Your task to perform on an android device: turn on showing notifications on the lock screen Image 0: 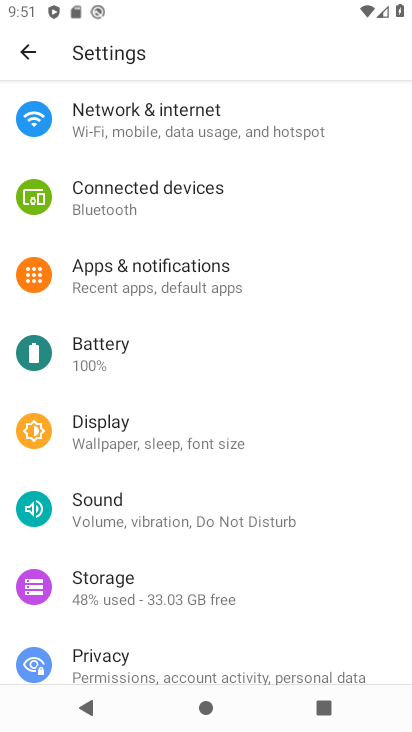
Step 0: click (227, 267)
Your task to perform on an android device: turn on showing notifications on the lock screen Image 1: 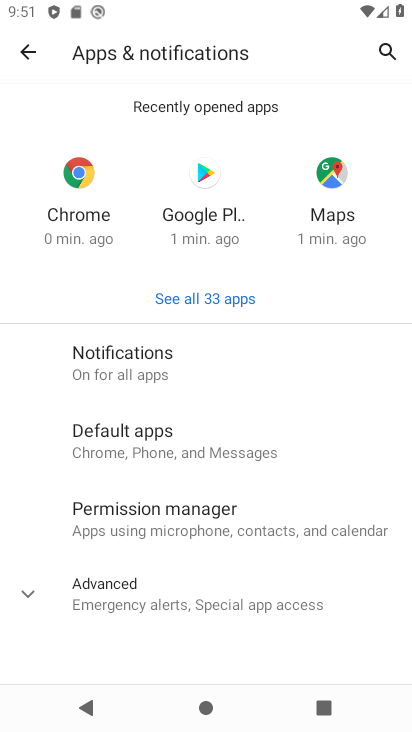
Step 1: click (206, 376)
Your task to perform on an android device: turn on showing notifications on the lock screen Image 2: 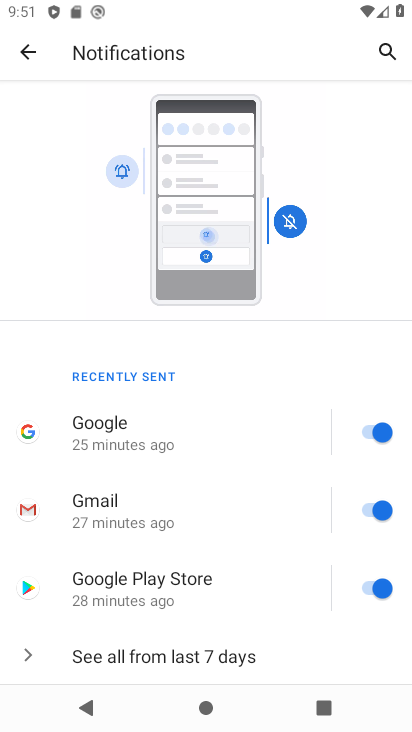
Step 2: drag from (222, 577) to (196, 187)
Your task to perform on an android device: turn on showing notifications on the lock screen Image 3: 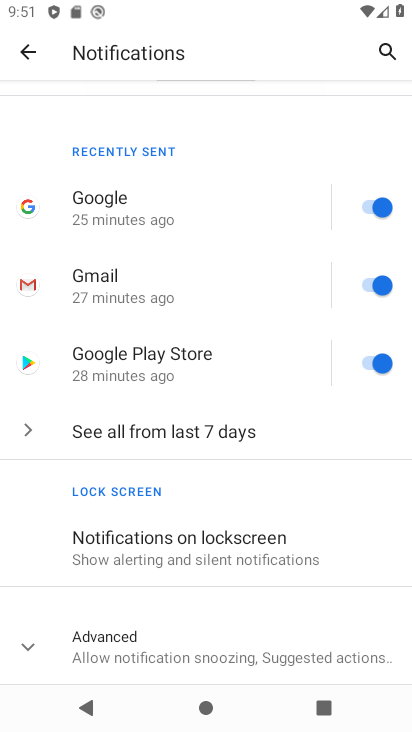
Step 3: drag from (167, 636) to (203, 208)
Your task to perform on an android device: turn on showing notifications on the lock screen Image 4: 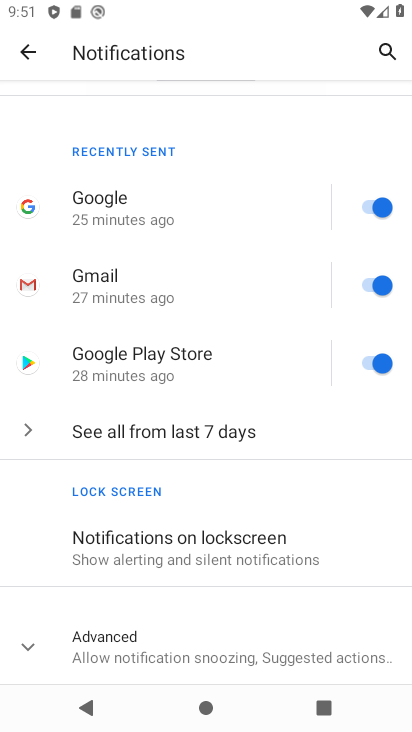
Step 4: click (250, 525)
Your task to perform on an android device: turn on showing notifications on the lock screen Image 5: 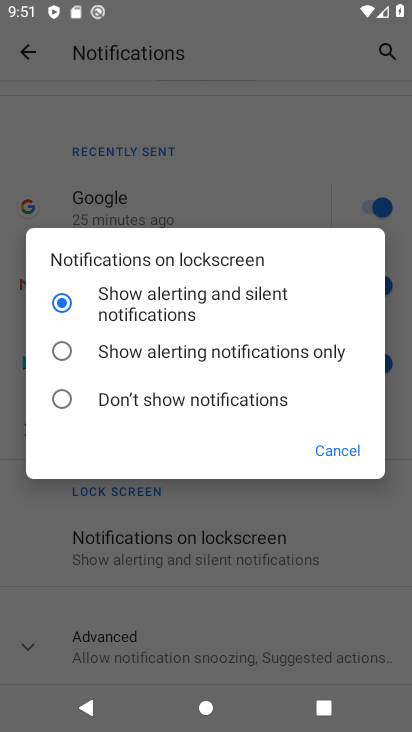
Step 5: task complete